Your task to perform on an android device: toggle wifi Image 0: 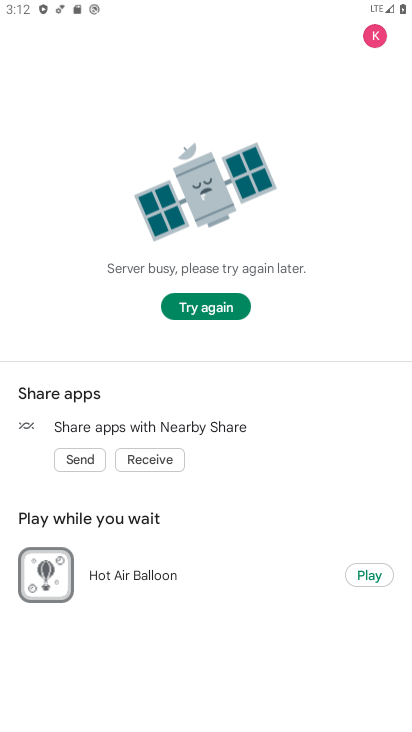
Step 0: press home button
Your task to perform on an android device: toggle wifi Image 1: 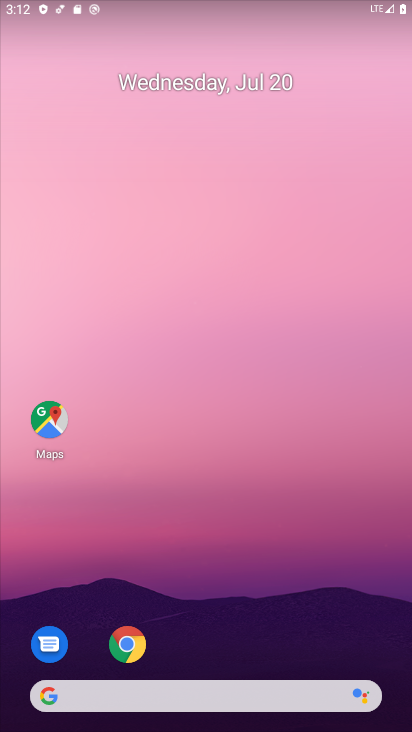
Step 1: drag from (57, 589) to (190, 188)
Your task to perform on an android device: toggle wifi Image 2: 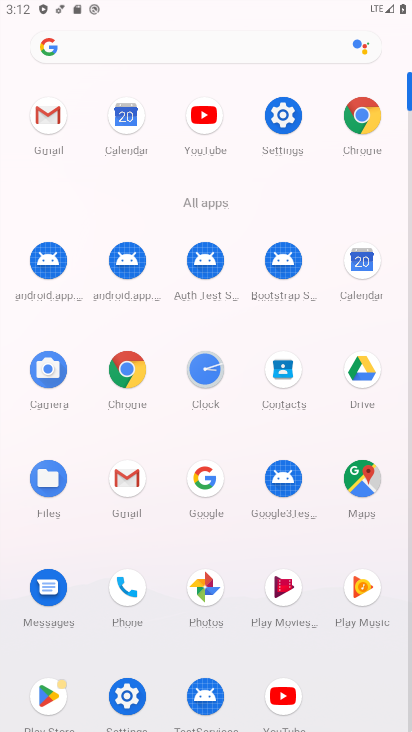
Step 2: click (118, 697)
Your task to perform on an android device: toggle wifi Image 3: 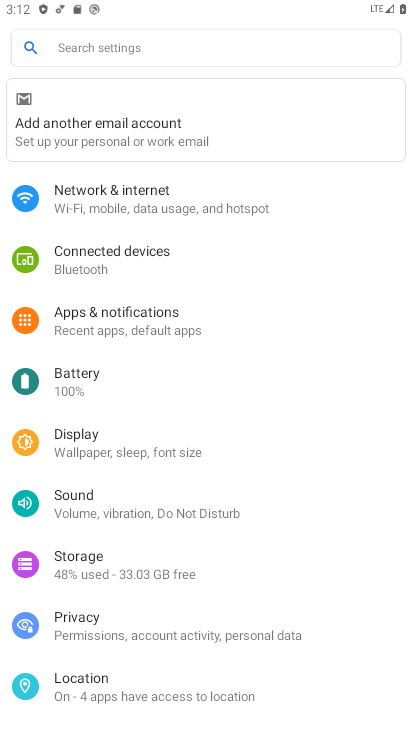
Step 3: click (126, 191)
Your task to perform on an android device: toggle wifi Image 4: 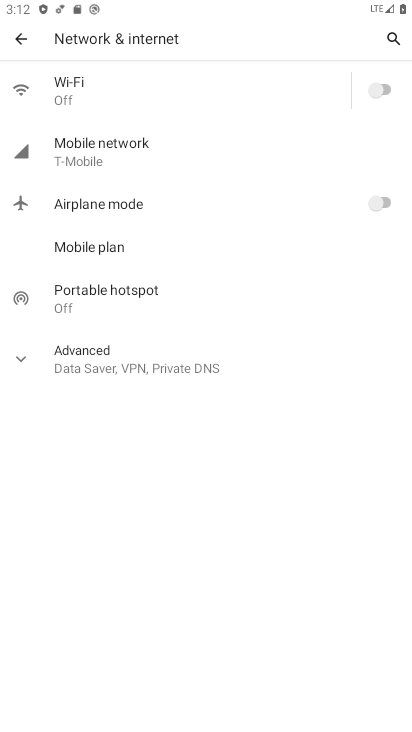
Step 4: click (403, 89)
Your task to perform on an android device: toggle wifi Image 5: 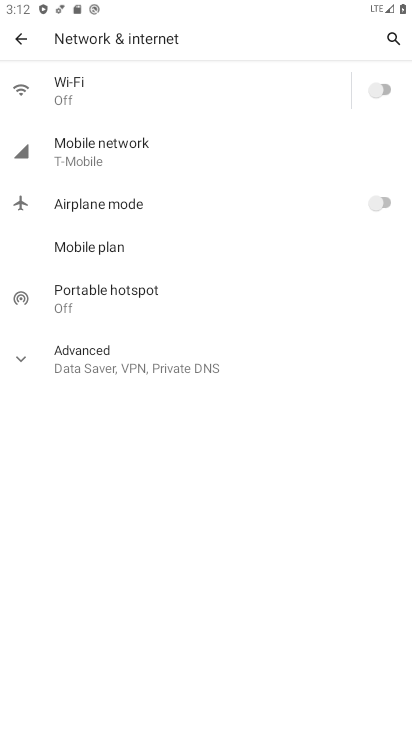
Step 5: click (385, 91)
Your task to perform on an android device: toggle wifi Image 6: 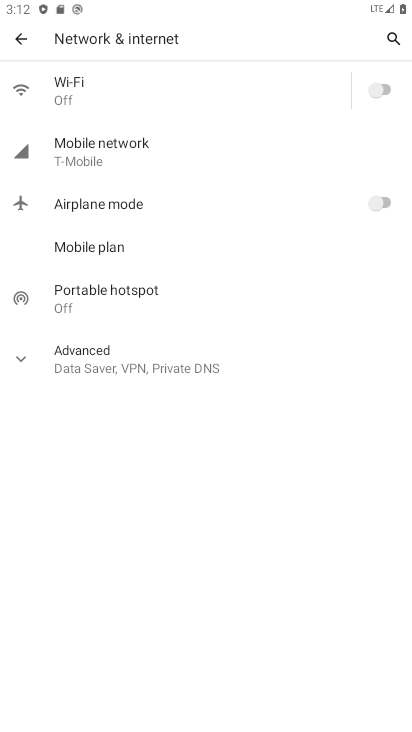
Step 6: task complete